Your task to perform on an android device: toggle notification dots Image 0: 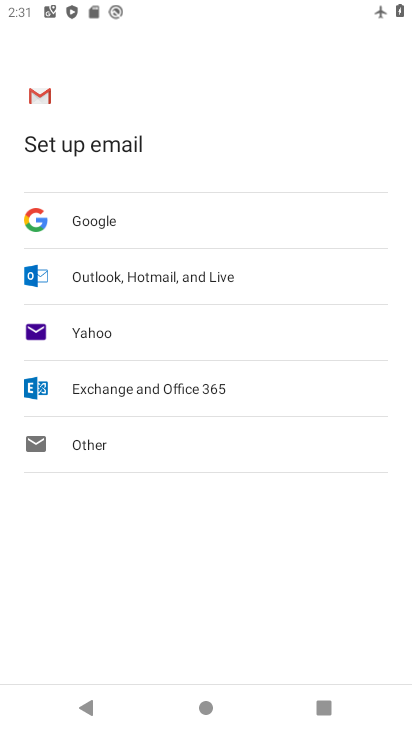
Step 0: press home button
Your task to perform on an android device: toggle notification dots Image 1: 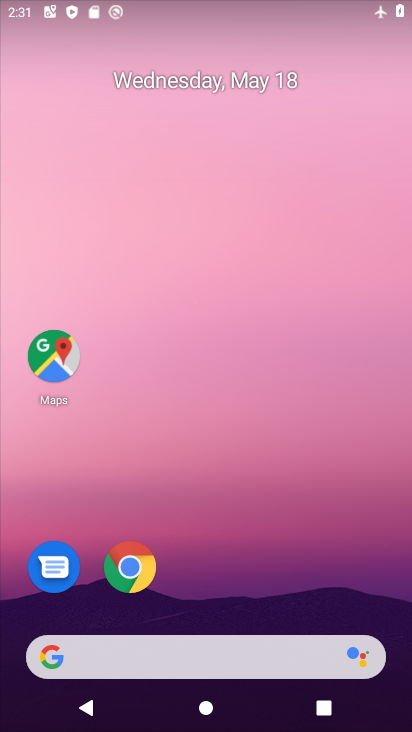
Step 1: drag from (269, 572) to (288, 264)
Your task to perform on an android device: toggle notification dots Image 2: 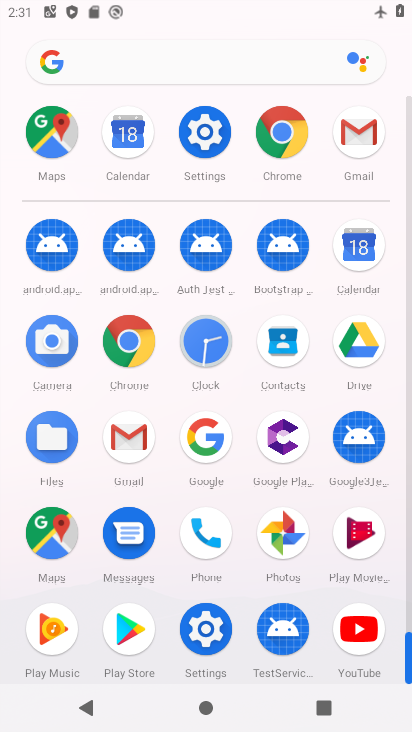
Step 2: click (196, 111)
Your task to perform on an android device: toggle notification dots Image 3: 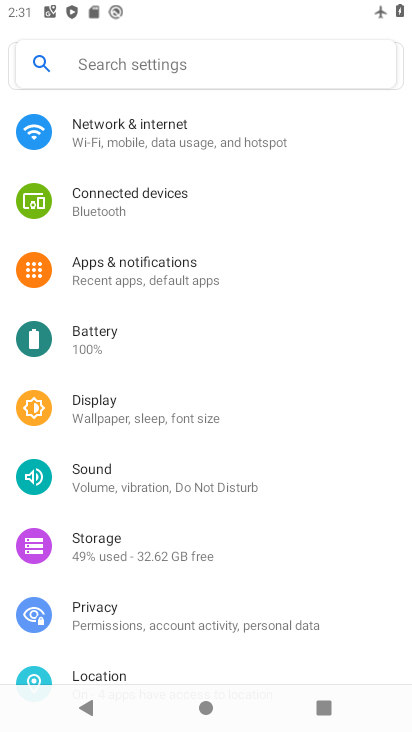
Step 3: click (203, 62)
Your task to perform on an android device: toggle notification dots Image 4: 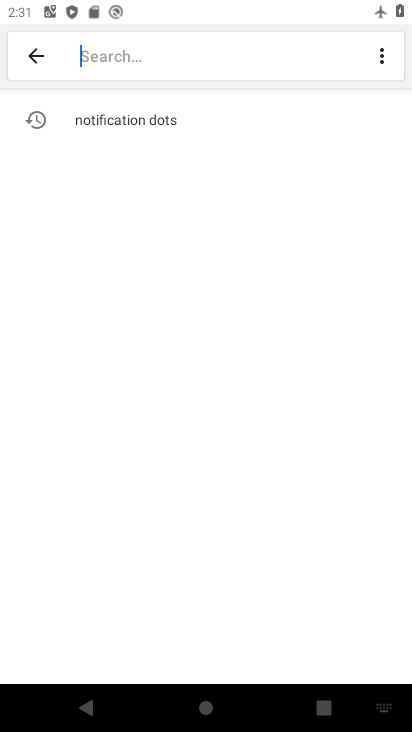
Step 4: click (166, 113)
Your task to perform on an android device: toggle notification dots Image 5: 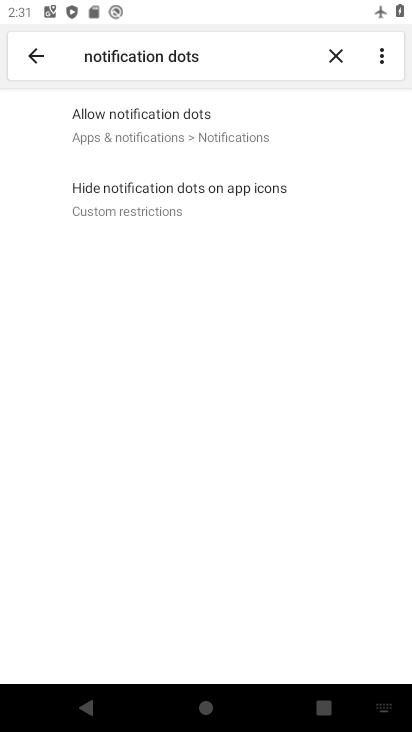
Step 5: click (186, 127)
Your task to perform on an android device: toggle notification dots Image 6: 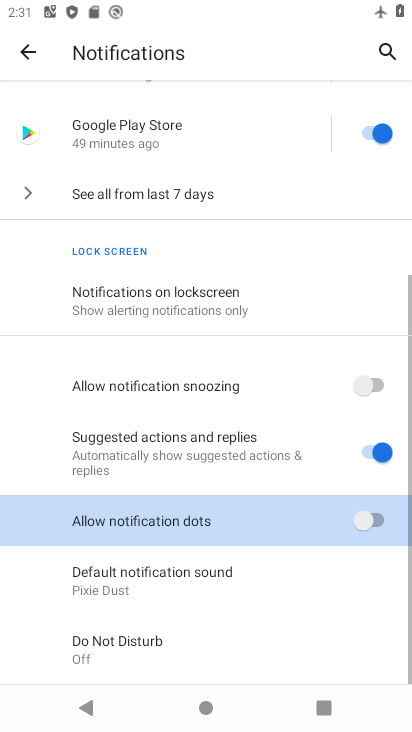
Step 6: click (372, 517)
Your task to perform on an android device: toggle notification dots Image 7: 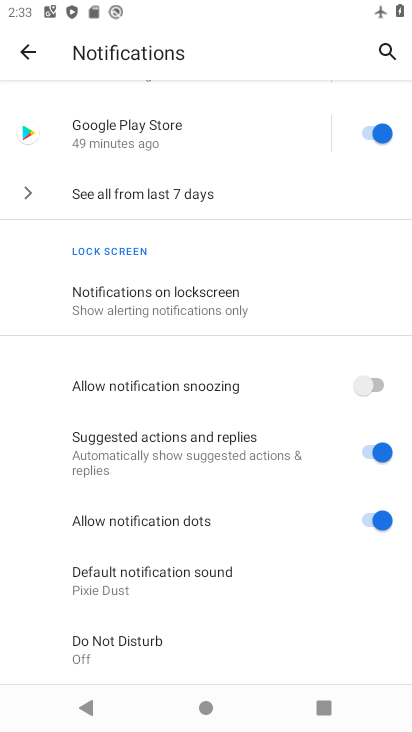
Step 7: task complete